Your task to perform on an android device: Open Google Image 0: 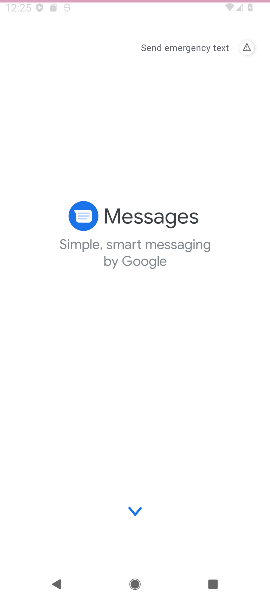
Step 0: press home button
Your task to perform on an android device: Open Google Image 1: 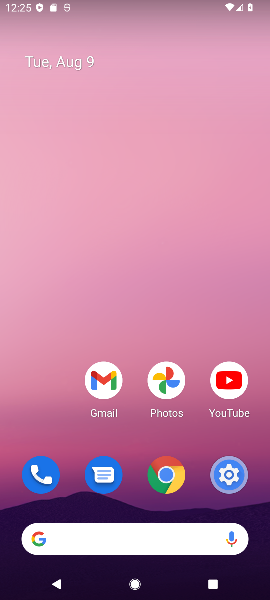
Step 1: drag from (125, 434) to (158, 2)
Your task to perform on an android device: Open Google Image 2: 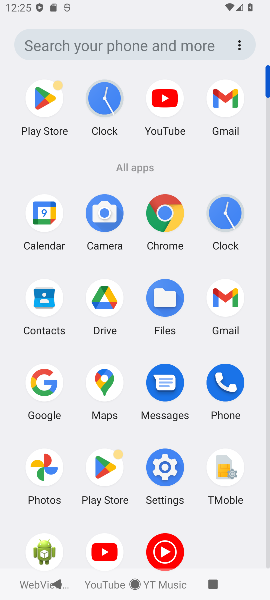
Step 2: click (40, 387)
Your task to perform on an android device: Open Google Image 3: 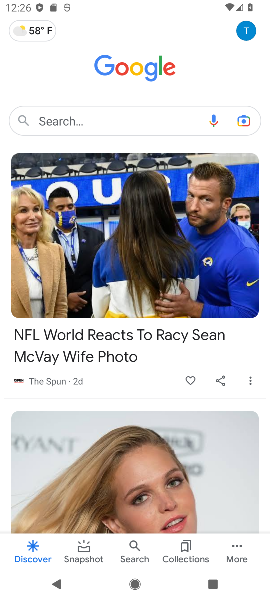
Step 3: task complete